Your task to perform on an android device: Open the web browser Image 0: 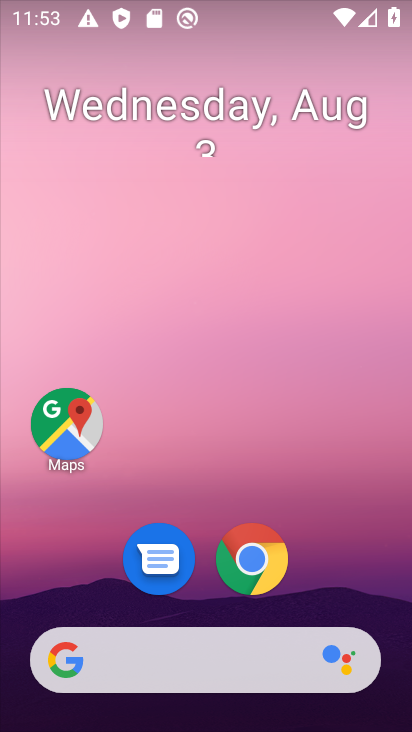
Step 0: click (254, 561)
Your task to perform on an android device: Open the web browser Image 1: 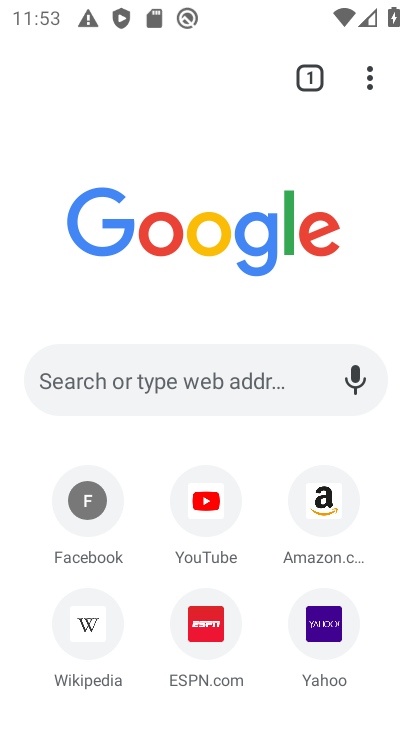
Step 1: task complete